Your task to perform on an android device: What's the weather going to be tomorrow? Image 0: 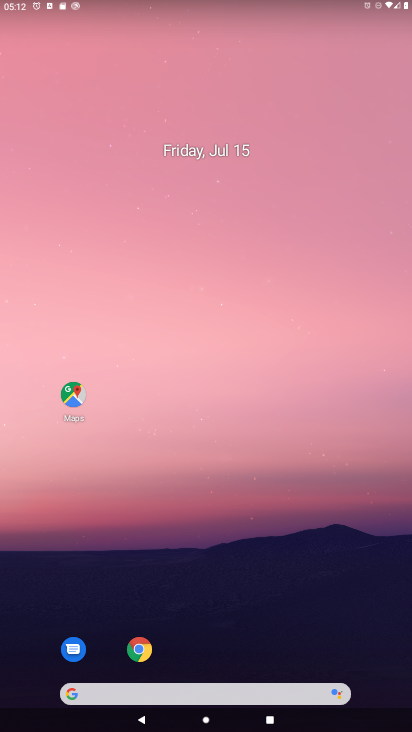
Step 0: drag from (3, 266) to (384, 310)
Your task to perform on an android device: What's the weather going to be tomorrow? Image 1: 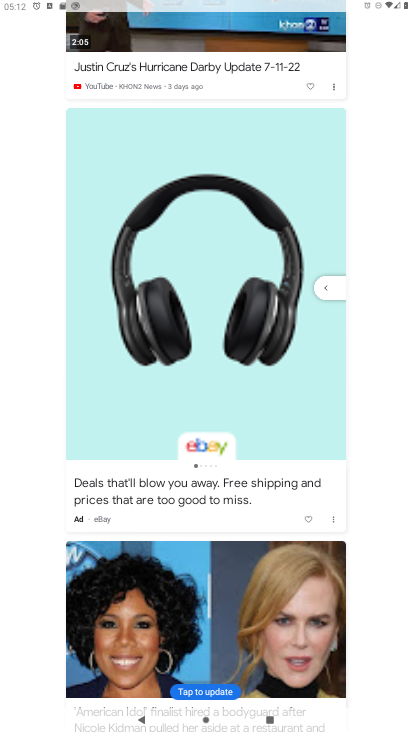
Step 1: drag from (236, 73) to (291, 576)
Your task to perform on an android device: What's the weather going to be tomorrow? Image 2: 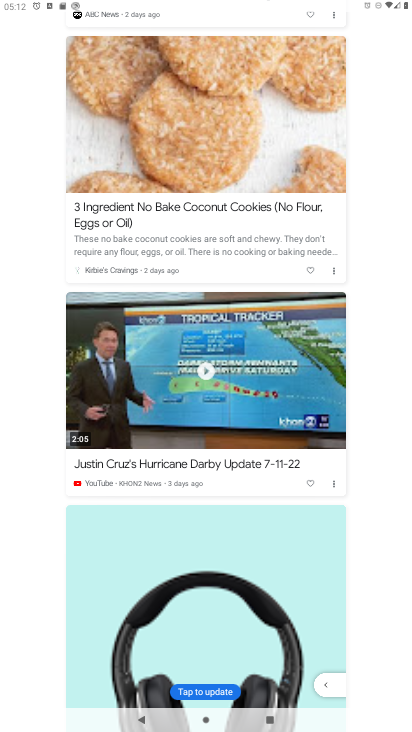
Step 2: drag from (249, 155) to (277, 562)
Your task to perform on an android device: What's the weather going to be tomorrow? Image 3: 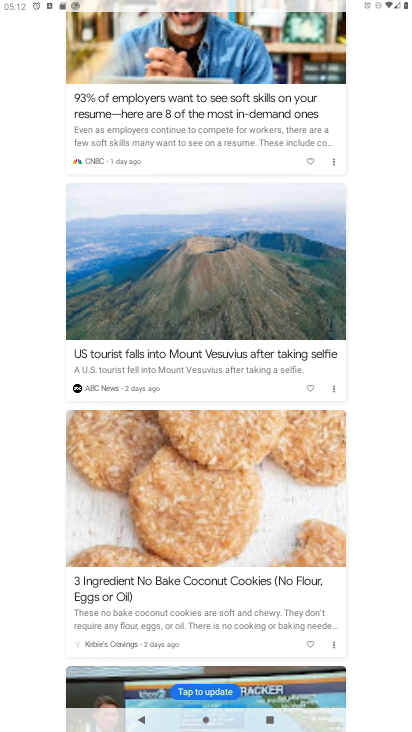
Step 3: drag from (287, 68) to (260, 406)
Your task to perform on an android device: What's the weather going to be tomorrow? Image 4: 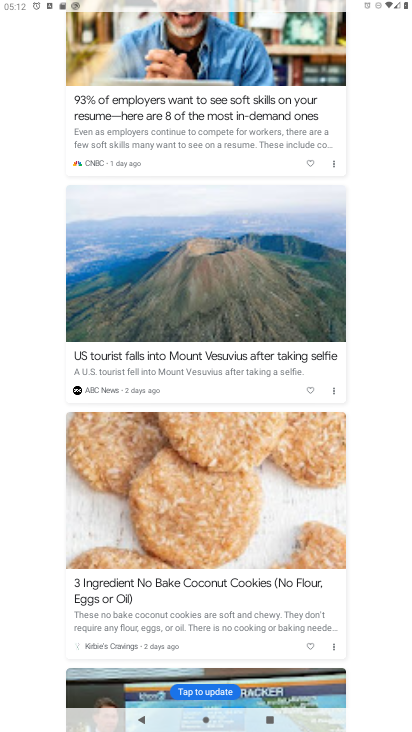
Step 4: drag from (282, 54) to (271, 549)
Your task to perform on an android device: What's the weather going to be tomorrow? Image 5: 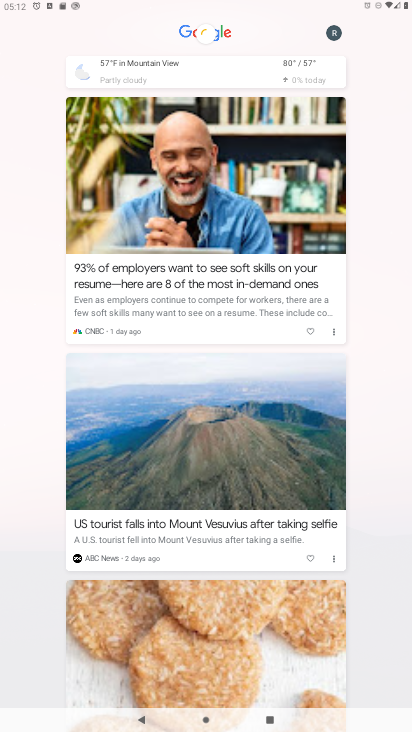
Step 5: click (289, 57)
Your task to perform on an android device: What's the weather going to be tomorrow? Image 6: 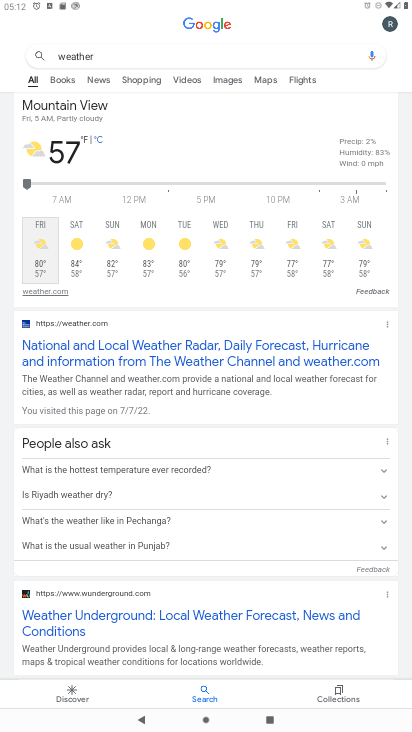
Step 6: task complete